Your task to perform on an android device: visit the assistant section in the google photos Image 0: 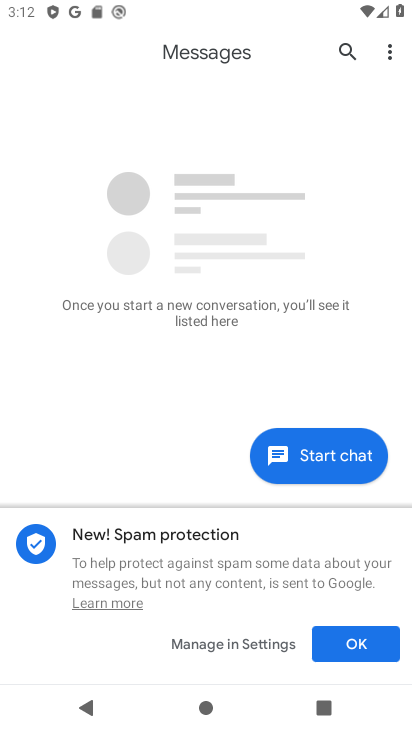
Step 0: press home button
Your task to perform on an android device: visit the assistant section in the google photos Image 1: 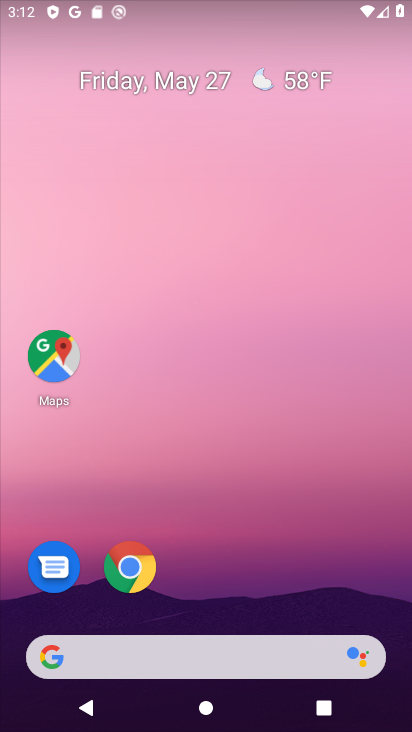
Step 1: drag from (204, 616) to (250, 50)
Your task to perform on an android device: visit the assistant section in the google photos Image 2: 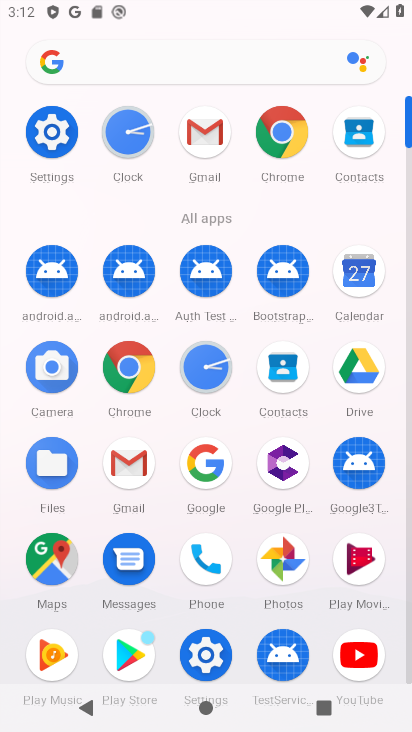
Step 2: click (283, 549)
Your task to perform on an android device: visit the assistant section in the google photos Image 3: 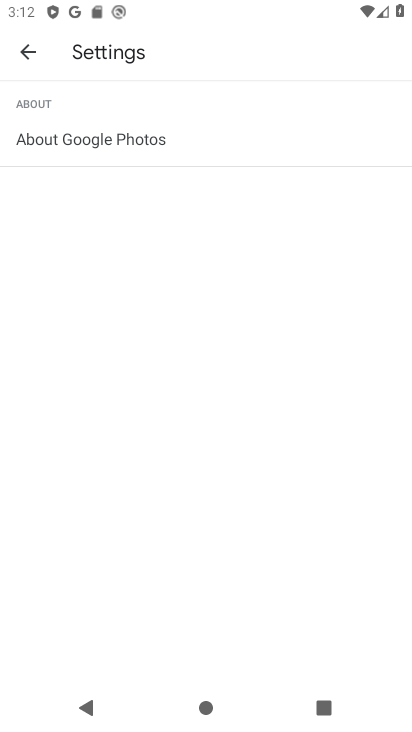
Step 3: click (30, 55)
Your task to perform on an android device: visit the assistant section in the google photos Image 4: 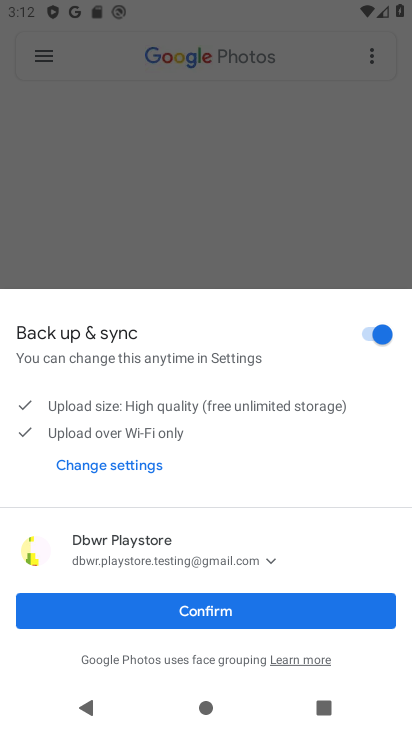
Step 4: click (215, 606)
Your task to perform on an android device: visit the assistant section in the google photos Image 5: 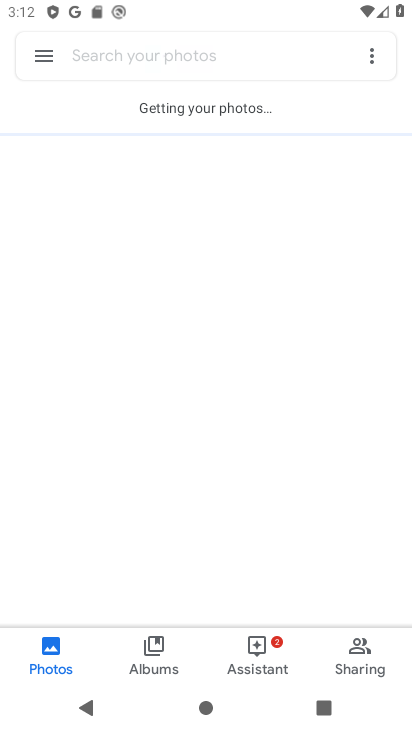
Step 5: click (253, 638)
Your task to perform on an android device: visit the assistant section in the google photos Image 6: 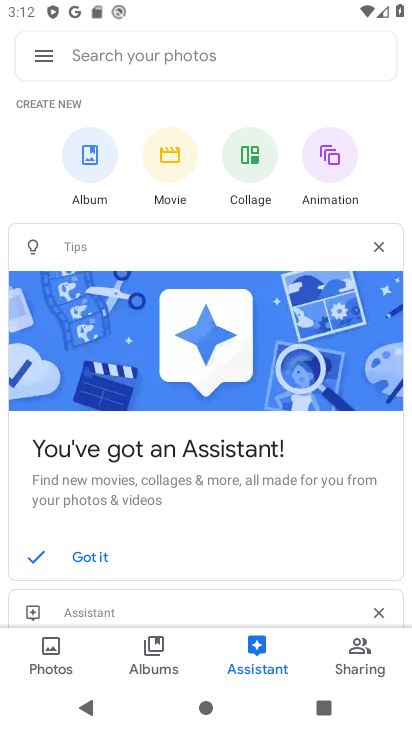
Step 6: task complete